Your task to perform on an android device: Open network settings Image 0: 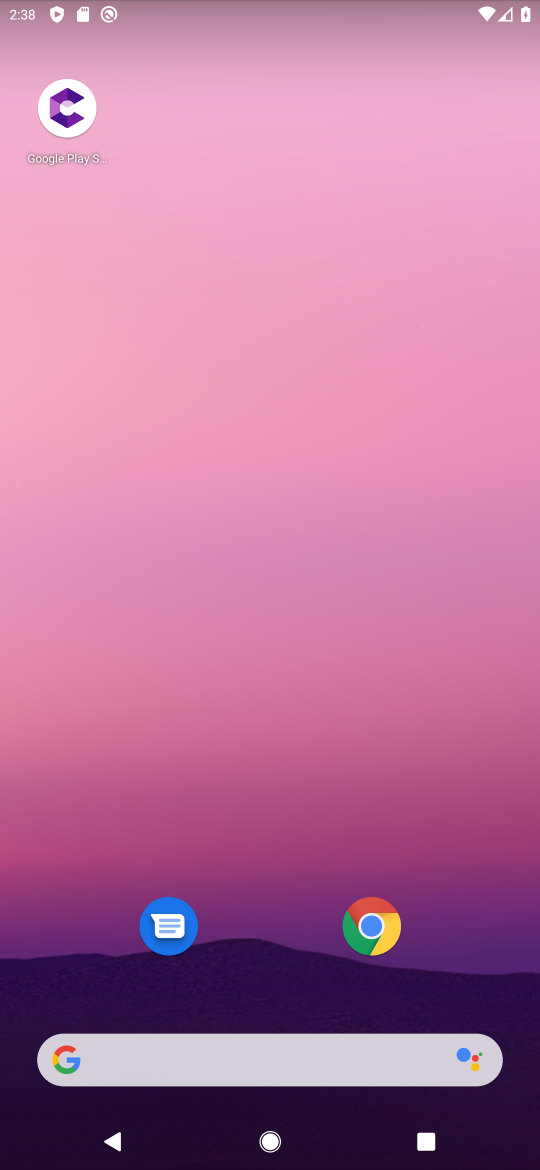
Step 0: drag from (514, 1128) to (451, 264)
Your task to perform on an android device: Open network settings Image 1: 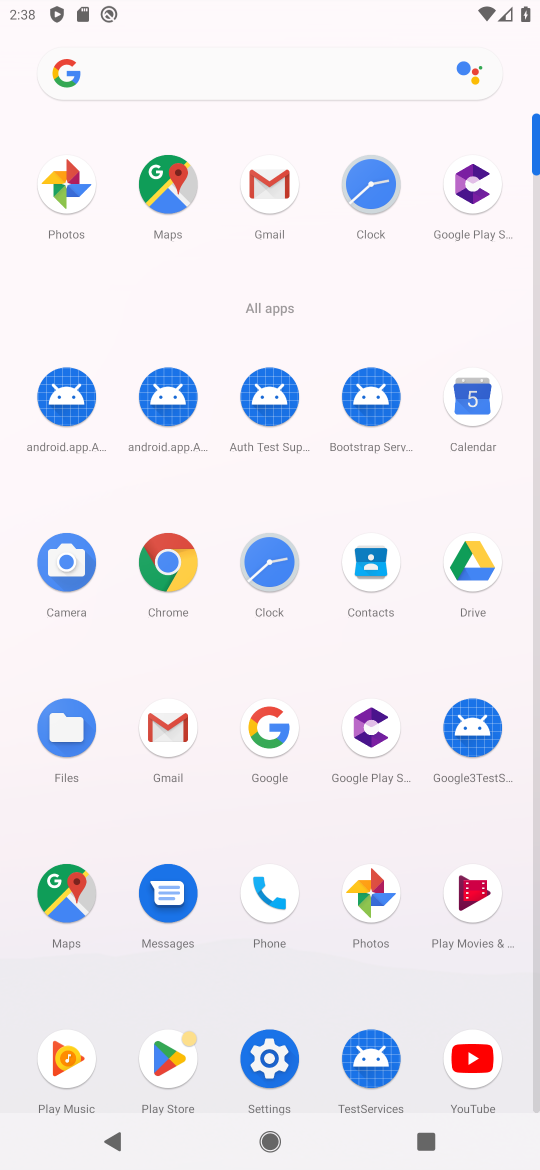
Step 1: click (266, 1057)
Your task to perform on an android device: Open network settings Image 2: 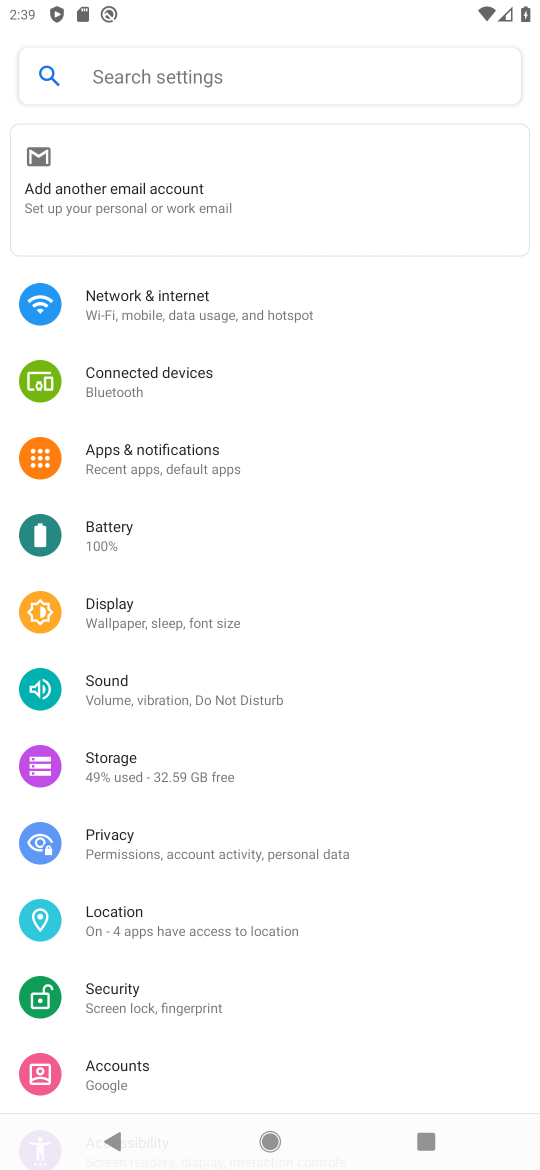
Step 2: click (149, 309)
Your task to perform on an android device: Open network settings Image 3: 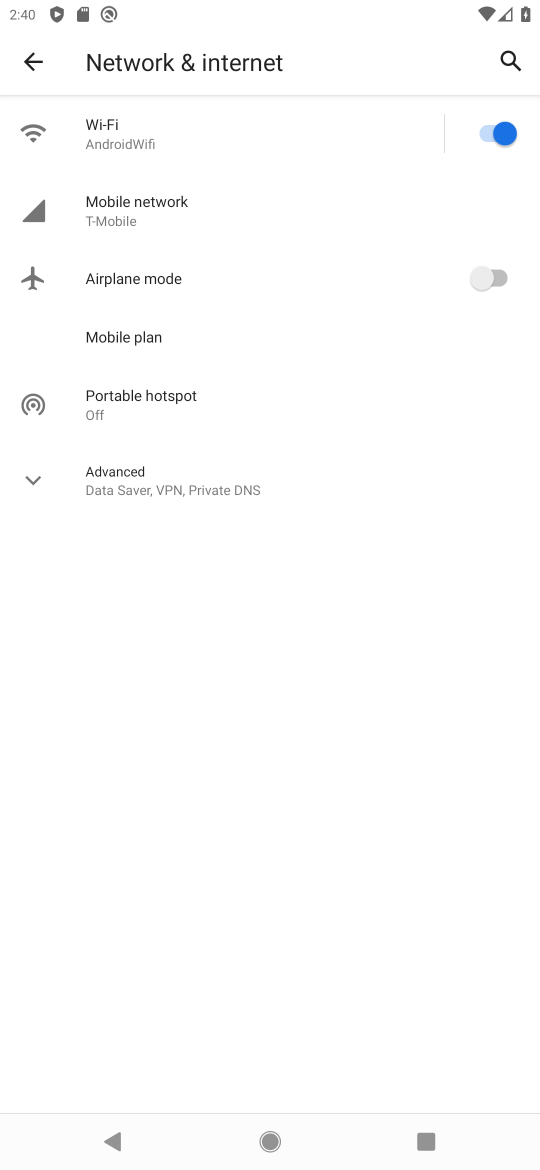
Step 3: click (30, 484)
Your task to perform on an android device: Open network settings Image 4: 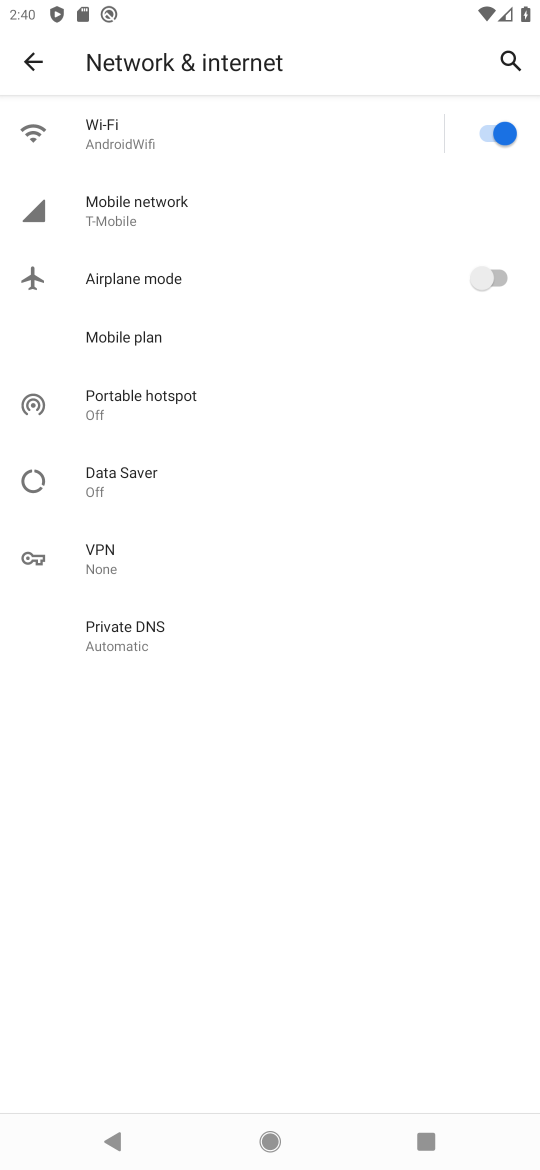
Step 4: task complete